Your task to perform on an android device: Do I have any events this weekend? Image 0: 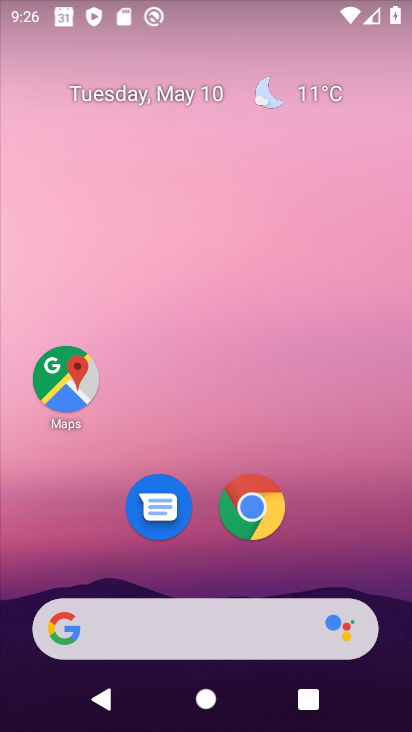
Step 0: drag from (188, 573) to (194, 42)
Your task to perform on an android device: Do I have any events this weekend? Image 1: 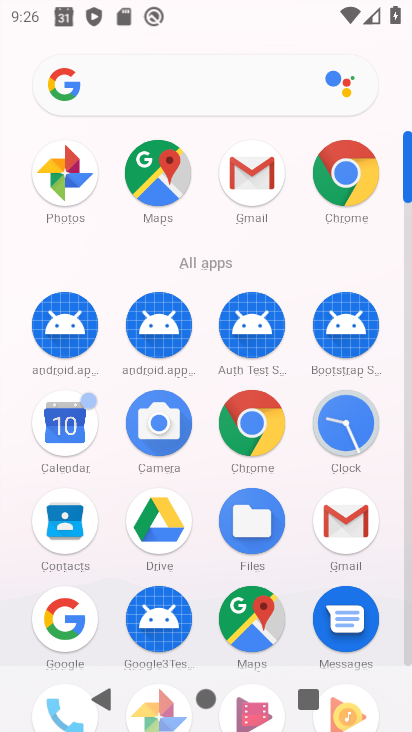
Step 1: click (57, 435)
Your task to perform on an android device: Do I have any events this weekend? Image 2: 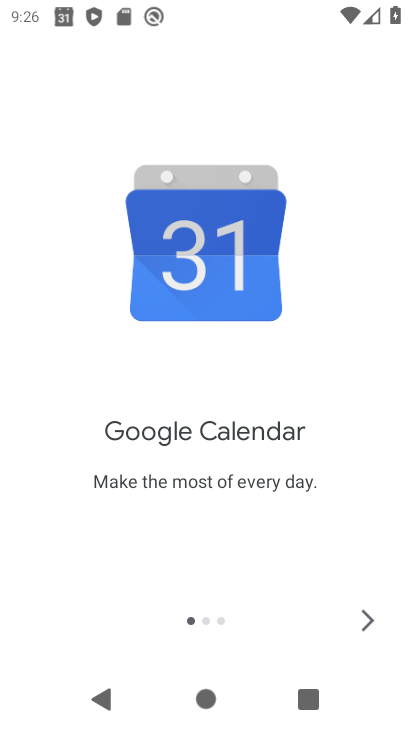
Step 2: click (382, 639)
Your task to perform on an android device: Do I have any events this weekend? Image 3: 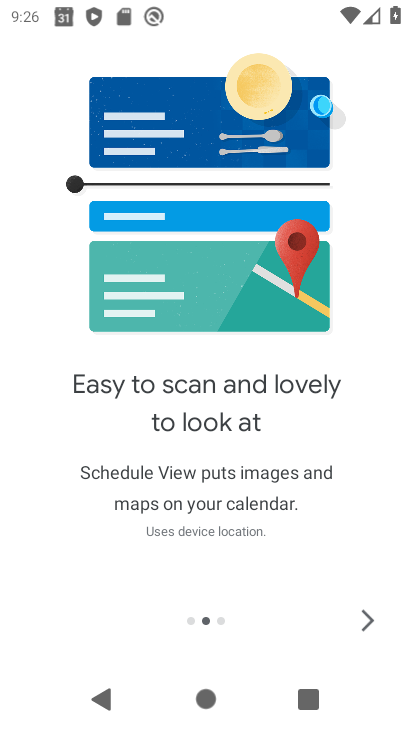
Step 3: click (379, 639)
Your task to perform on an android device: Do I have any events this weekend? Image 4: 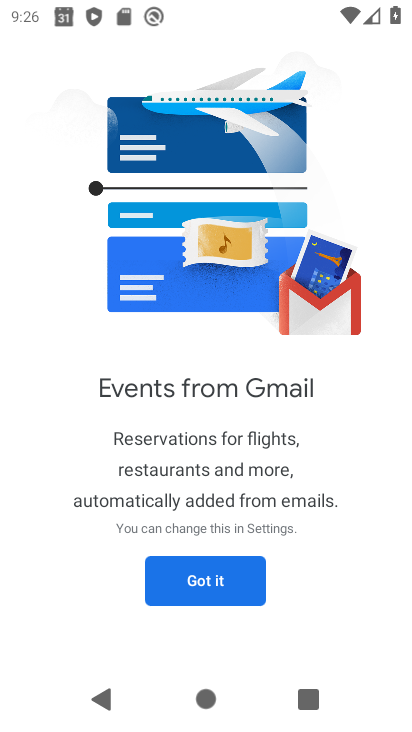
Step 4: click (193, 595)
Your task to perform on an android device: Do I have any events this weekend? Image 5: 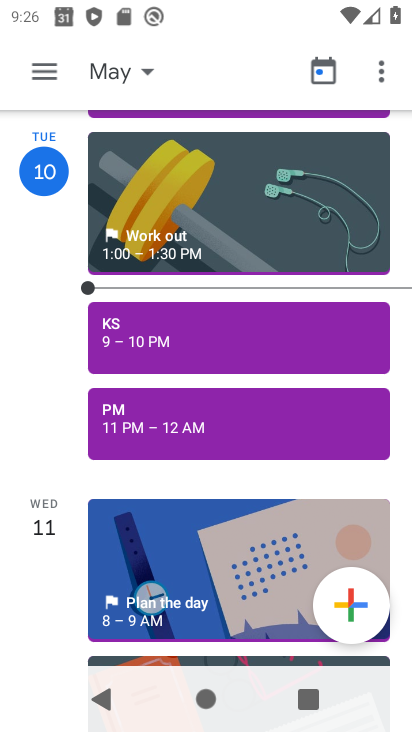
Step 5: click (124, 88)
Your task to perform on an android device: Do I have any events this weekend? Image 6: 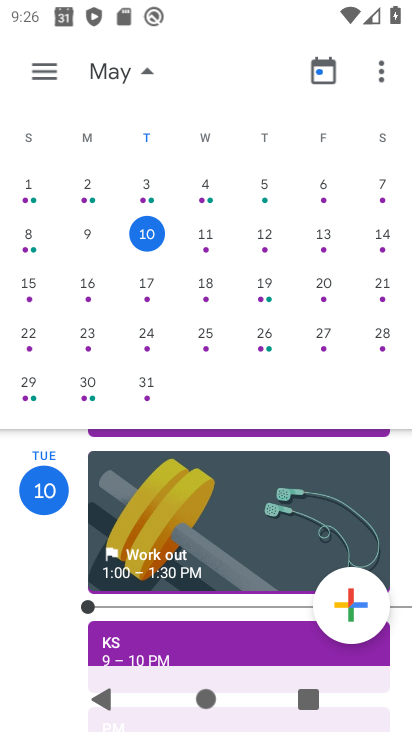
Step 6: click (378, 252)
Your task to perform on an android device: Do I have any events this weekend? Image 7: 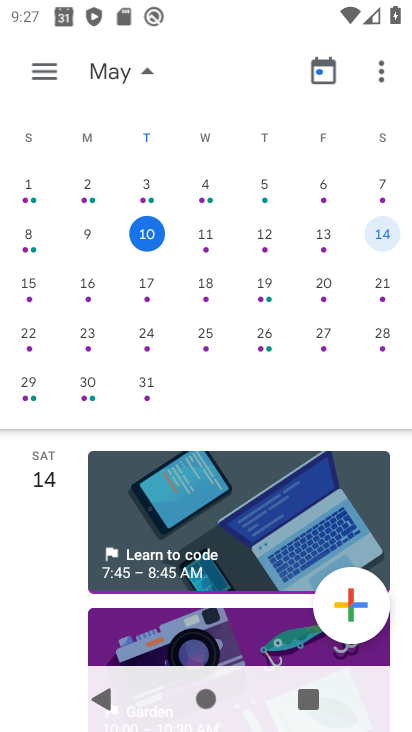
Step 7: task complete